Your task to perform on an android device: install app "Google Home" Image 0: 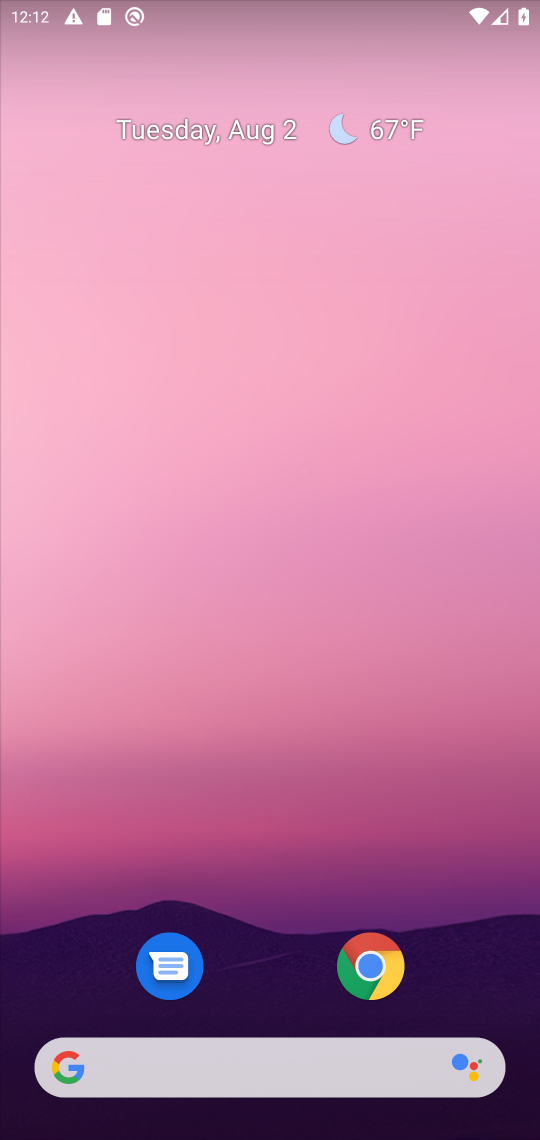
Step 0: press home button
Your task to perform on an android device: install app "Google Home" Image 1: 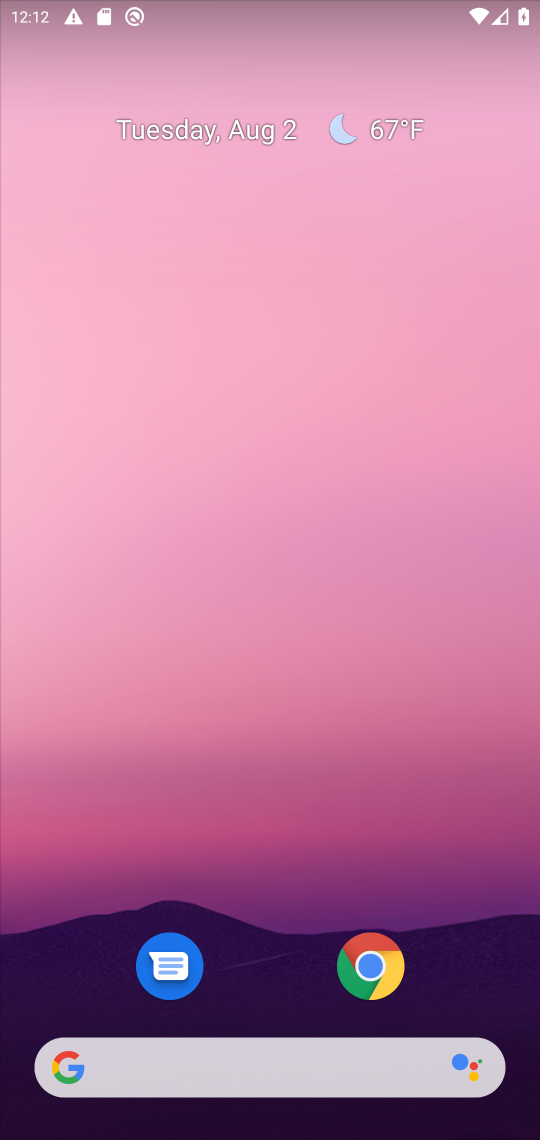
Step 1: drag from (440, 845) to (414, 127)
Your task to perform on an android device: install app "Google Home" Image 2: 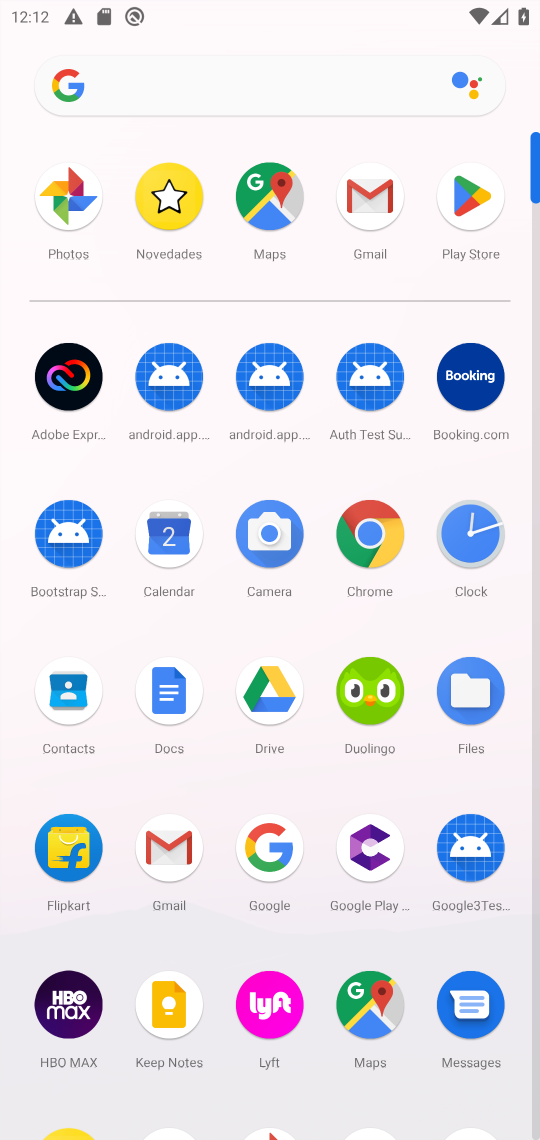
Step 2: click (473, 212)
Your task to perform on an android device: install app "Google Home" Image 3: 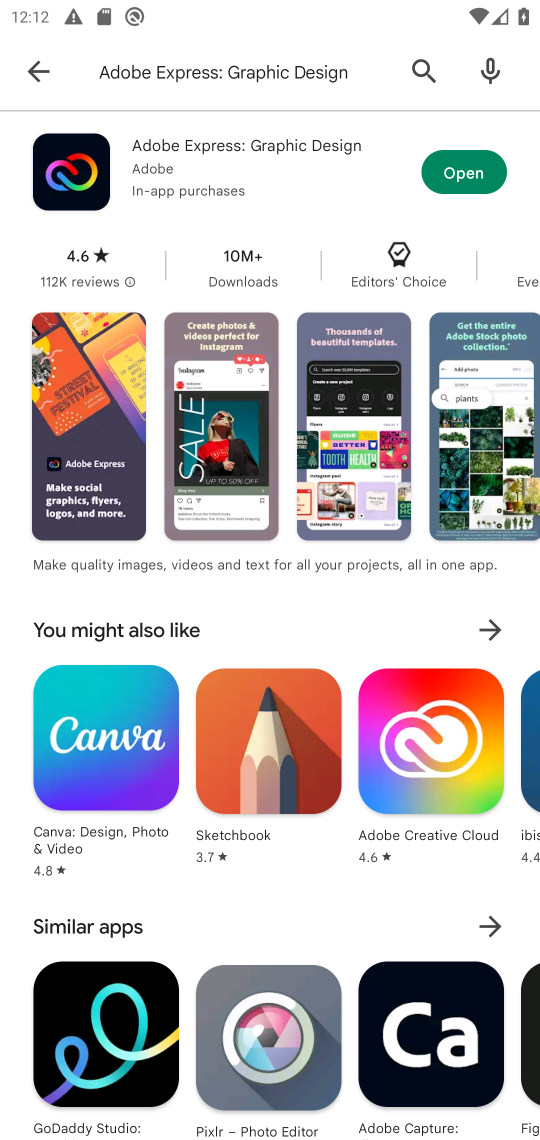
Step 3: click (418, 64)
Your task to perform on an android device: install app "Google Home" Image 4: 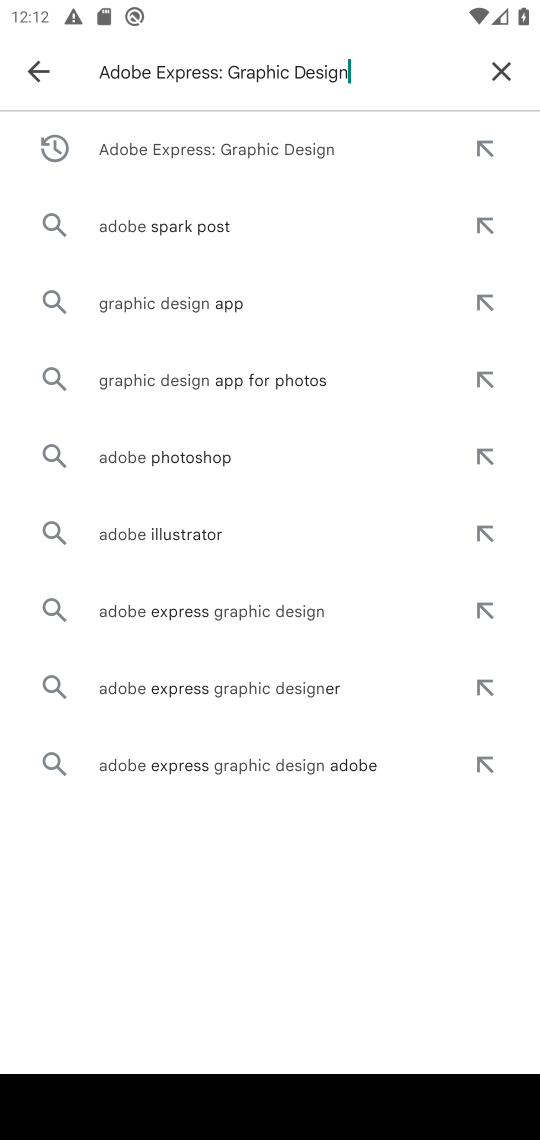
Step 4: click (503, 68)
Your task to perform on an android device: install app "Google Home" Image 5: 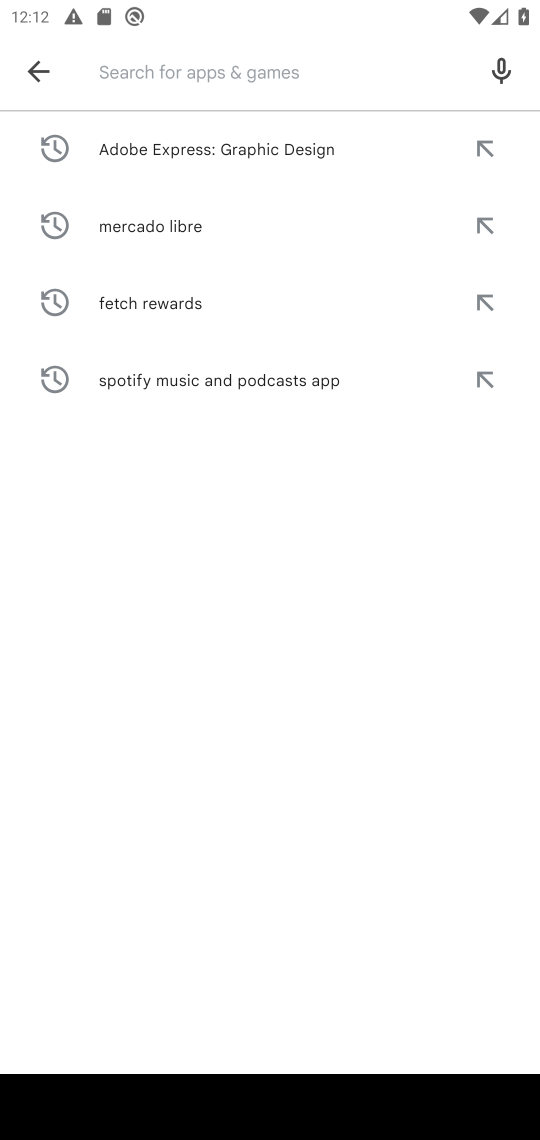
Step 5: type "google home"
Your task to perform on an android device: install app "Google Home" Image 6: 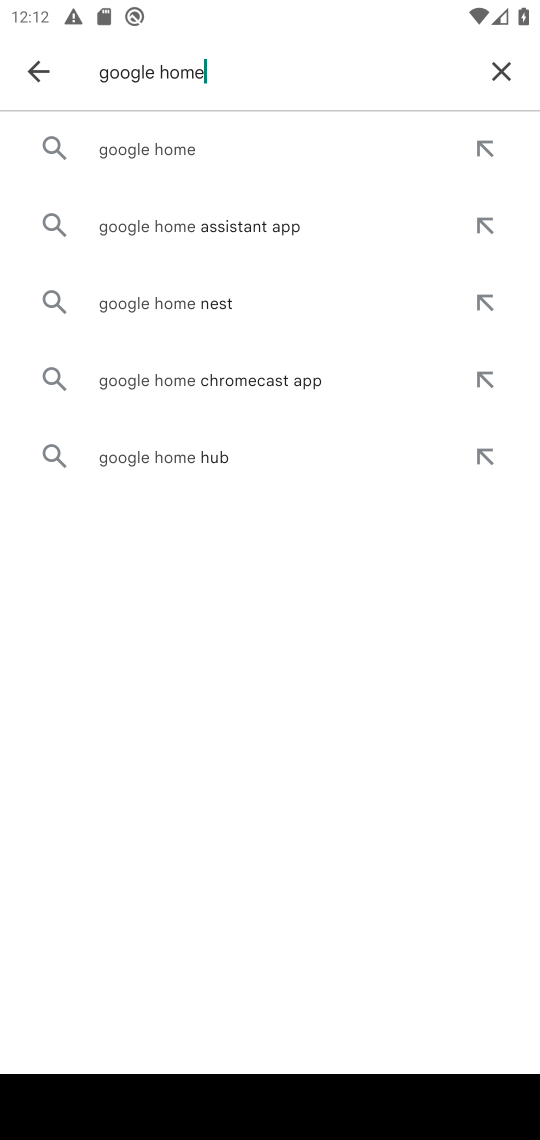
Step 6: click (218, 154)
Your task to perform on an android device: install app "Google Home" Image 7: 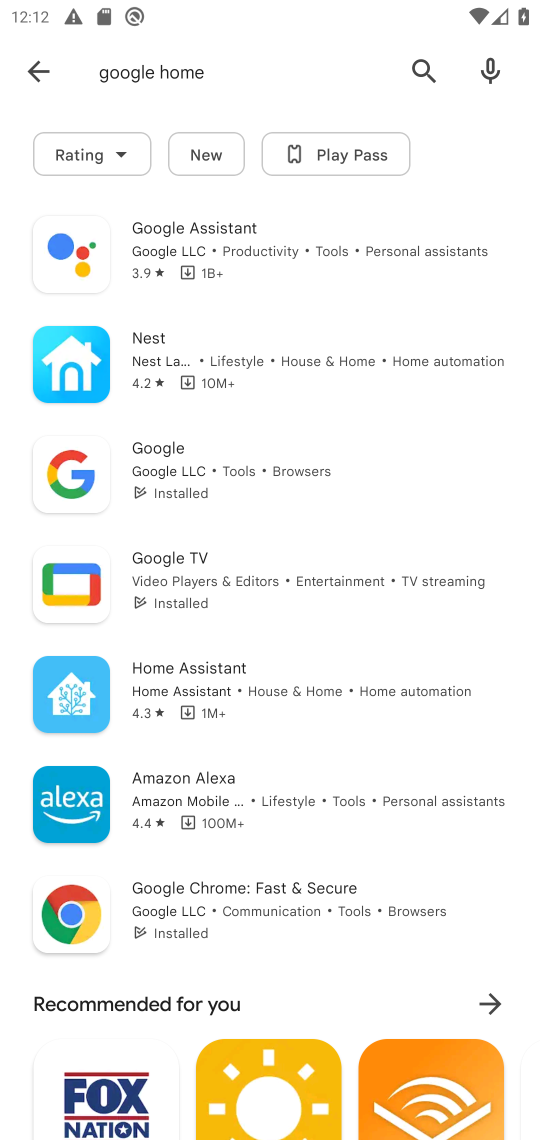
Step 7: task complete